Your task to perform on an android device: Open Maps and search for coffee Image 0: 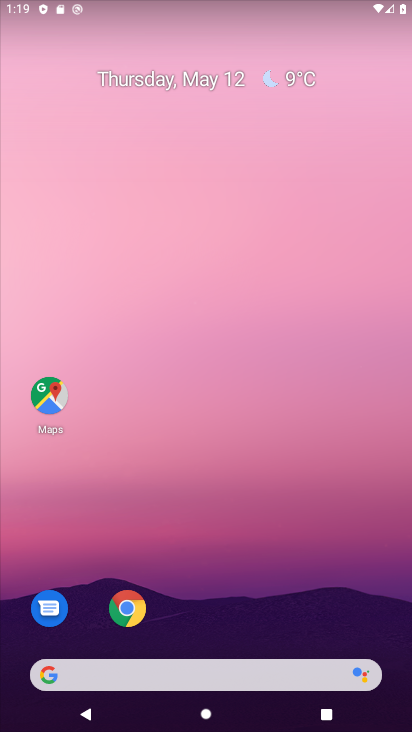
Step 0: click (61, 411)
Your task to perform on an android device: Open Maps and search for coffee Image 1: 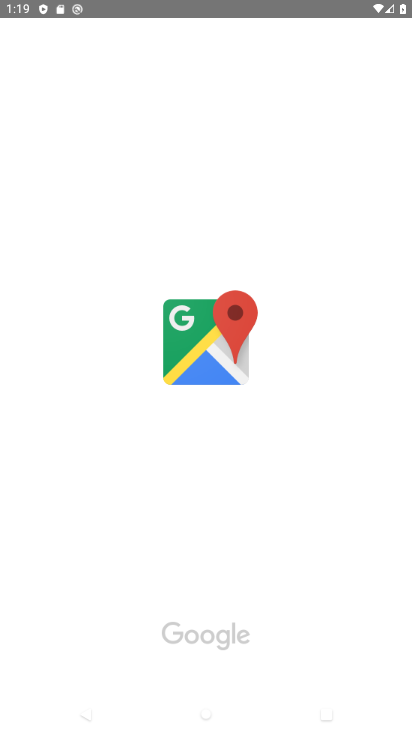
Step 1: click (254, 147)
Your task to perform on an android device: Open Maps and search for coffee Image 2: 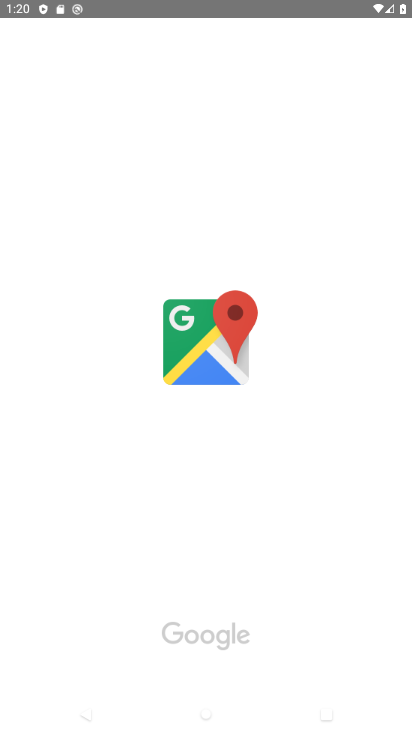
Step 2: click (254, 147)
Your task to perform on an android device: Open Maps and search for coffee Image 3: 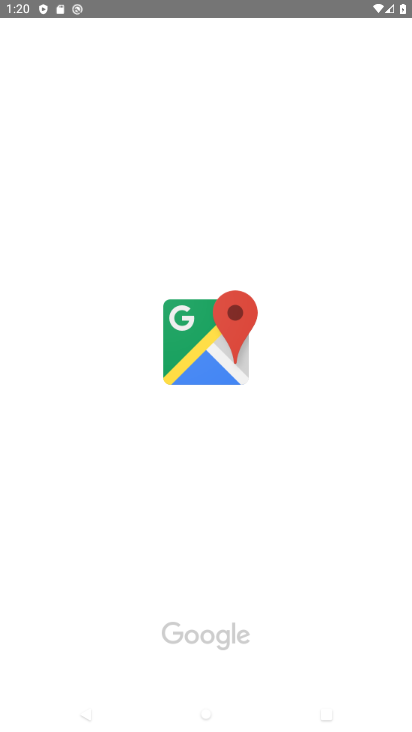
Step 3: click (254, 147)
Your task to perform on an android device: Open Maps and search for coffee Image 4: 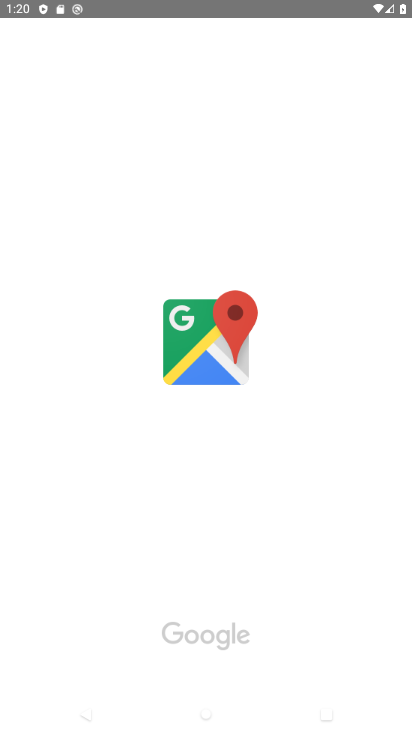
Step 4: click (254, 147)
Your task to perform on an android device: Open Maps and search for coffee Image 5: 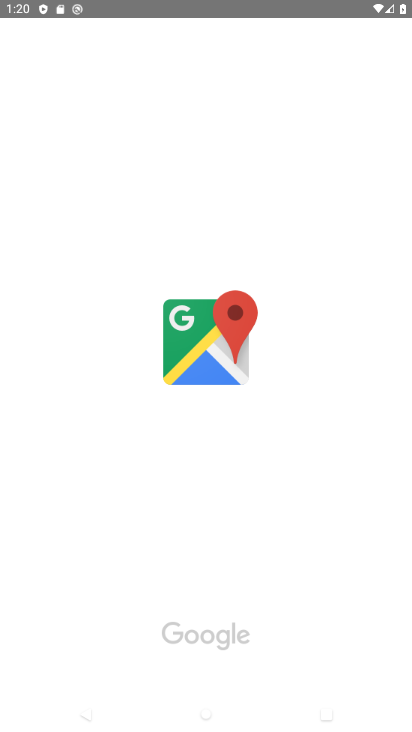
Step 5: click (254, 147)
Your task to perform on an android device: Open Maps and search for coffee Image 6: 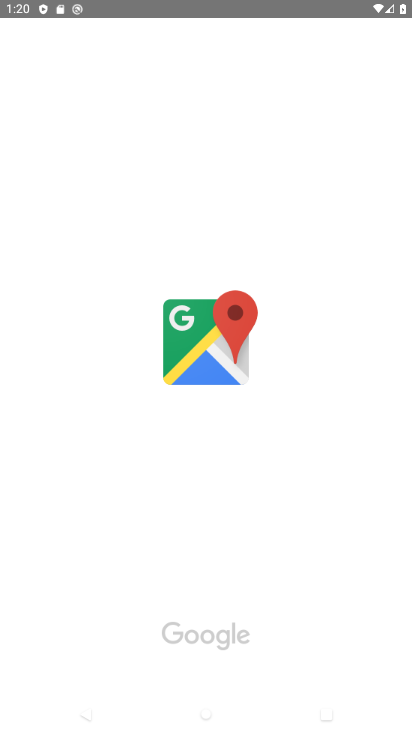
Step 6: click (245, 336)
Your task to perform on an android device: Open Maps and search for coffee Image 7: 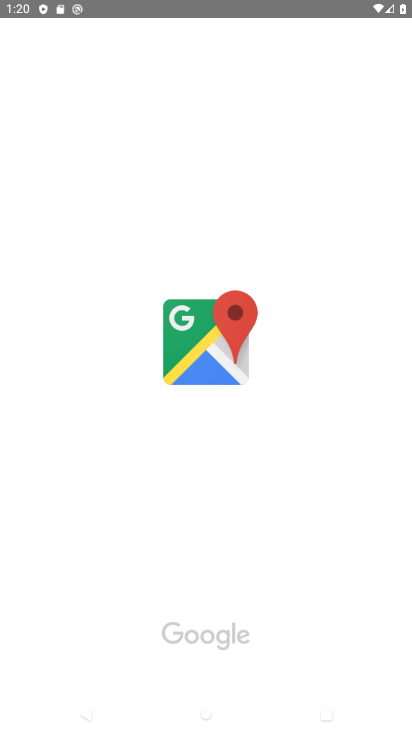
Step 7: click (245, 336)
Your task to perform on an android device: Open Maps and search for coffee Image 8: 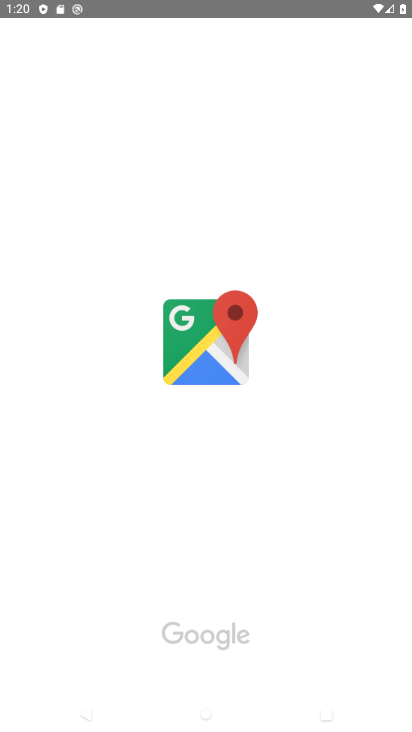
Step 8: click (245, 336)
Your task to perform on an android device: Open Maps and search for coffee Image 9: 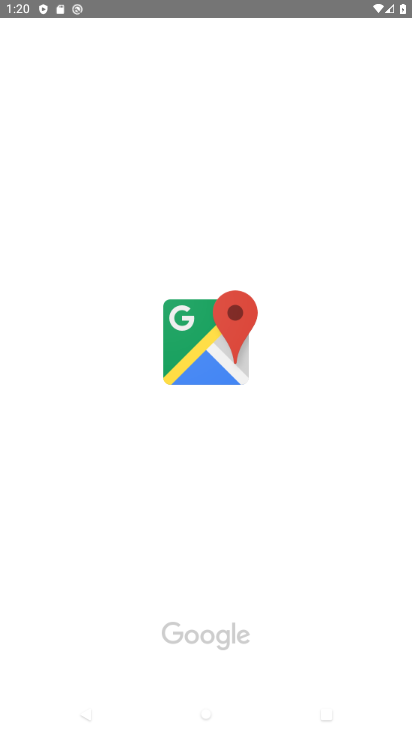
Step 9: click (245, 336)
Your task to perform on an android device: Open Maps and search for coffee Image 10: 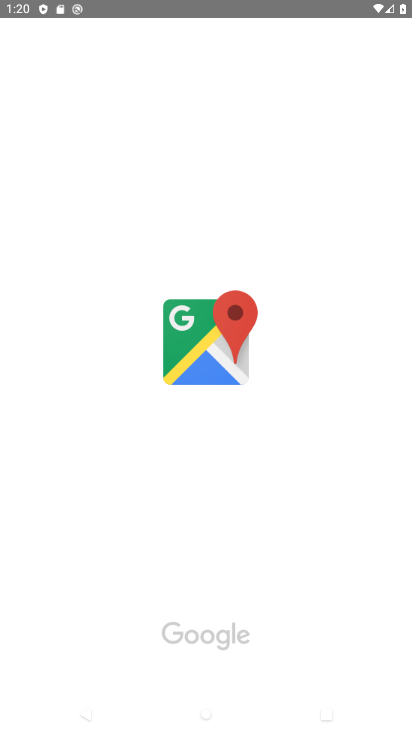
Step 10: click (245, 336)
Your task to perform on an android device: Open Maps and search for coffee Image 11: 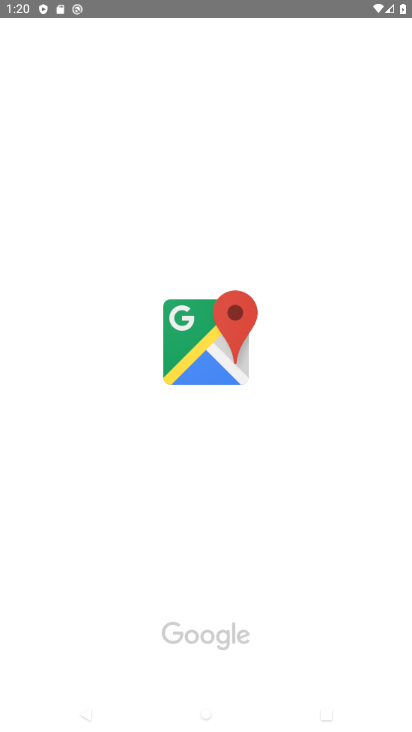
Step 11: click (245, 336)
Your task to perform on an android device: Open Maps and search for coffee Image 12: 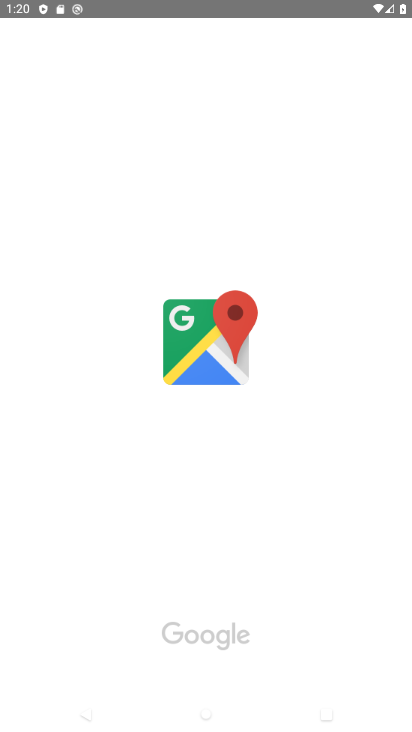
Step 12: click (245, 336)
Your task to perform on an android device: Open Maps and search for coffee Image 13: 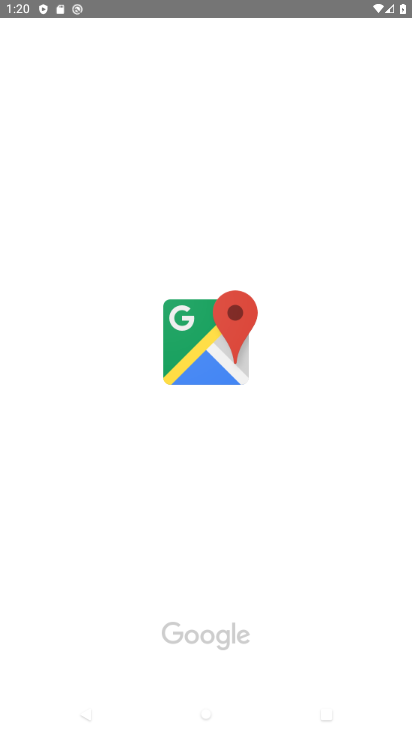
Step 13: click (245, 336)
Your task to perform on an android device: Open Maps and search for coffee Image 14: 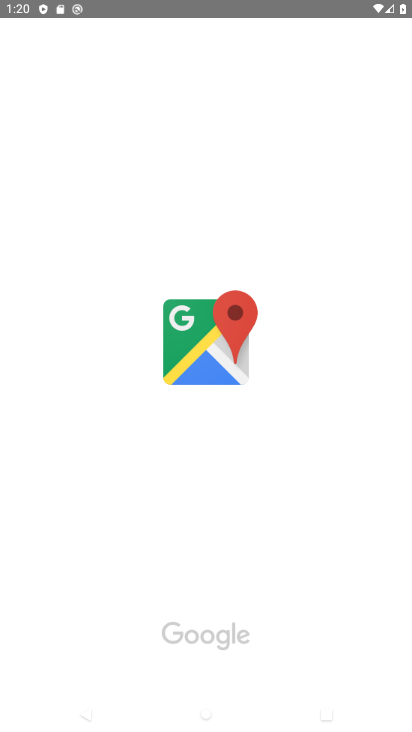
Step 14: click (245, 336)
Your task to perform on an android device: Open Maps and search for coffee Image 15: 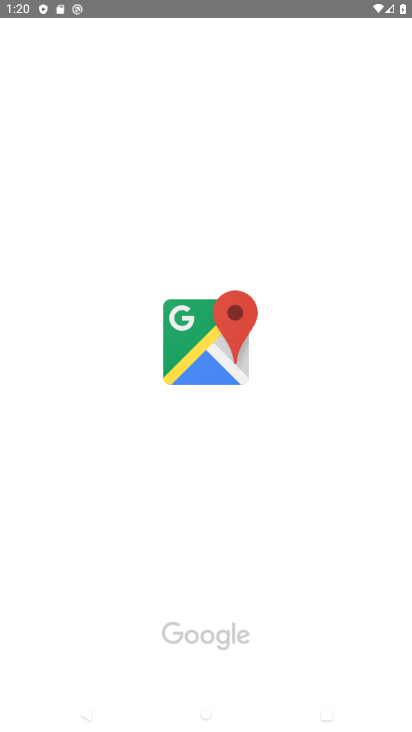
Step 15: click (245, 336)
Your task to perform on an android device: Open Maps and search for coffee Image 16: 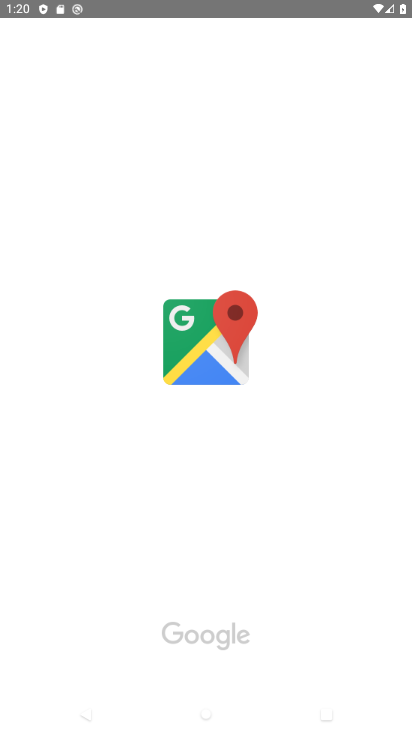
Step 16: click (245, 336)
Your task to perform on an android device: Open Maps and search for coffee Image 17: 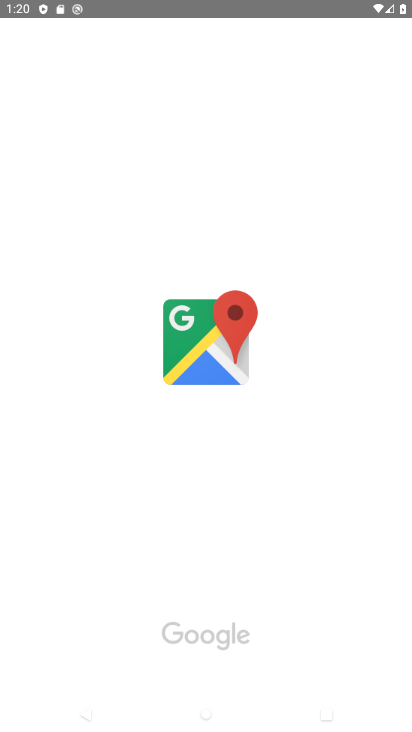
Step 17: click (245, 336)
Your task to perform on an android device: Open Maps and search for coffee Image 18: 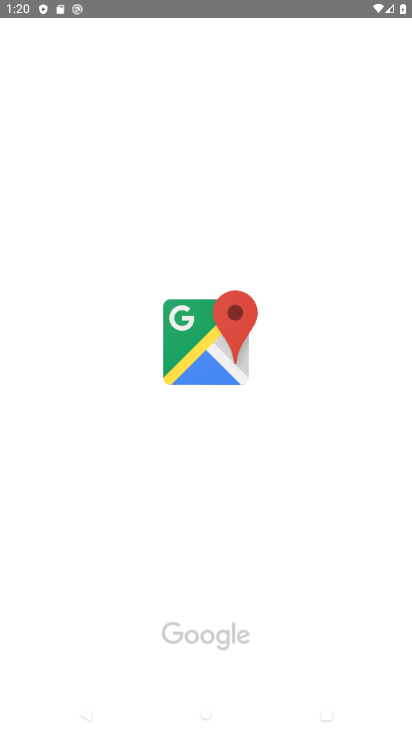
Step 18: click (245, 336)
Your task to perform on an android device: Open Maps and search for coffee Image 19: 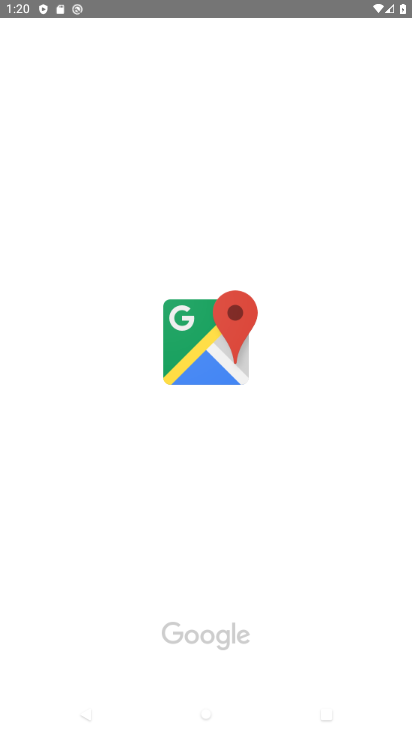
Step 19: click (249, 384)
Your task to perform on an android device: Open Maps and search for coffee Image 20: 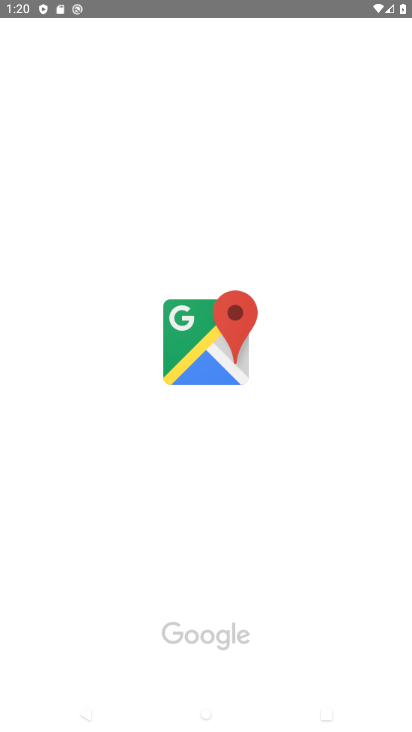
Step 20: click (249, 384)
Your task to perform on an android device: Open Maps and search for coffee Image 21: 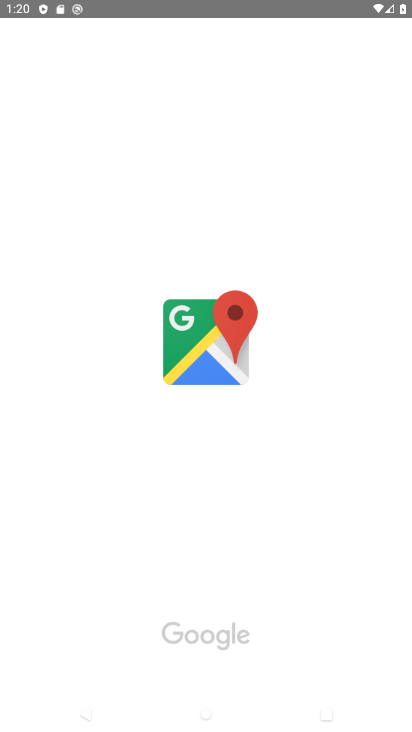
Step 21: task complete